Your task to perform on an android device: clear all cookies in the chrome app Image 0: 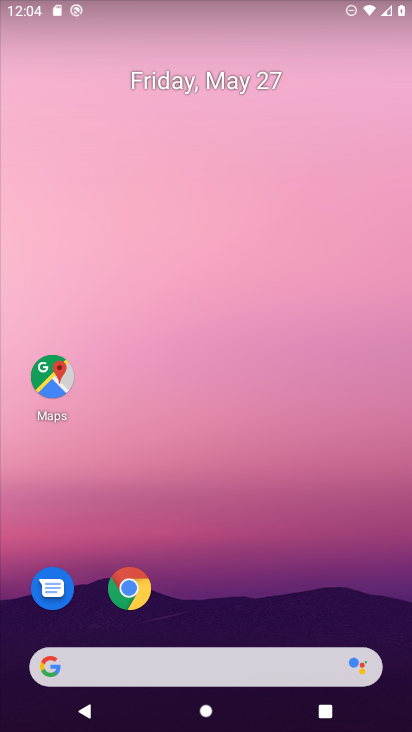
Step 0: click (130, 588)
Your task to perform on an android device: clear all cookies in the chrome app Image 1: 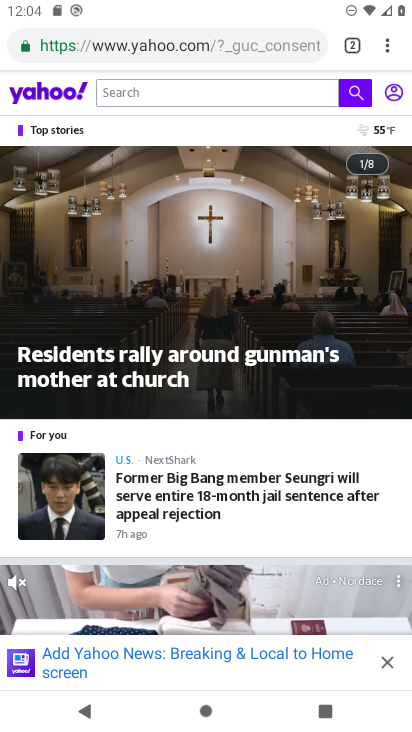
Step 1: click (383, 45)
Your task to perform on an android device: clear all cookies in the chrome app Image 2: 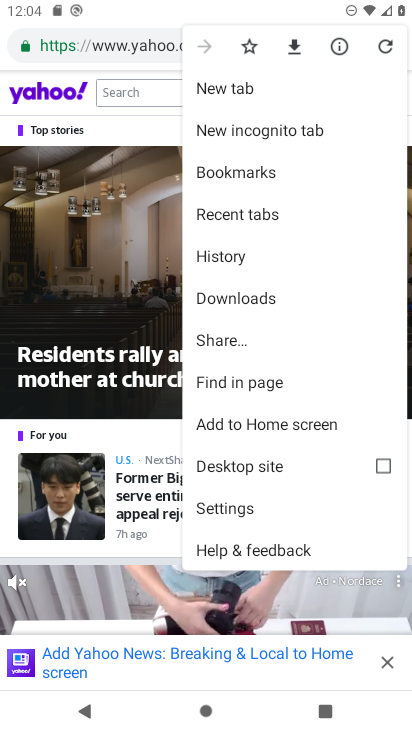
Step 2: click (225, 252)
Your task to perform on an android device: clear all cookies in the chrome app Image 3: 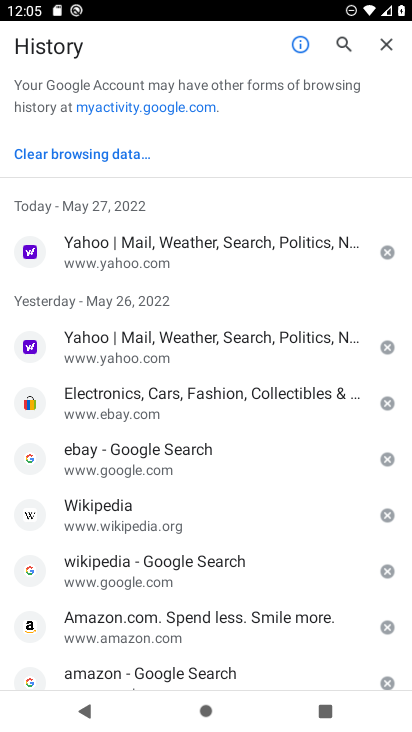
Step 3: click (71, 160)
Your task to perform on an android device: clear all cookies in the chrome app Image 4: 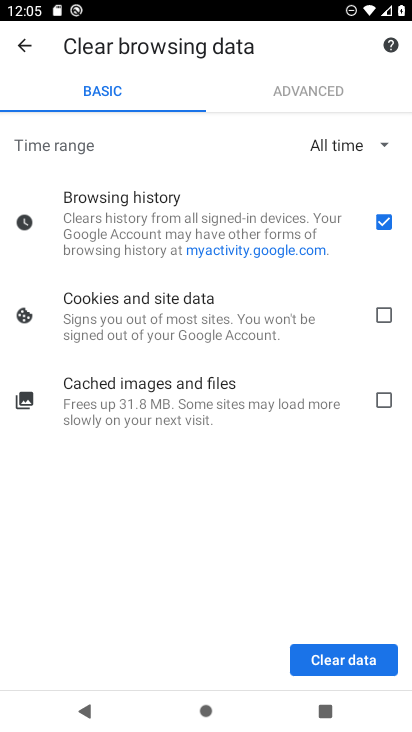
Step 4: click (388, 313)
Your task to perform on an android device: clear all cookies in the chrome app Image 5: 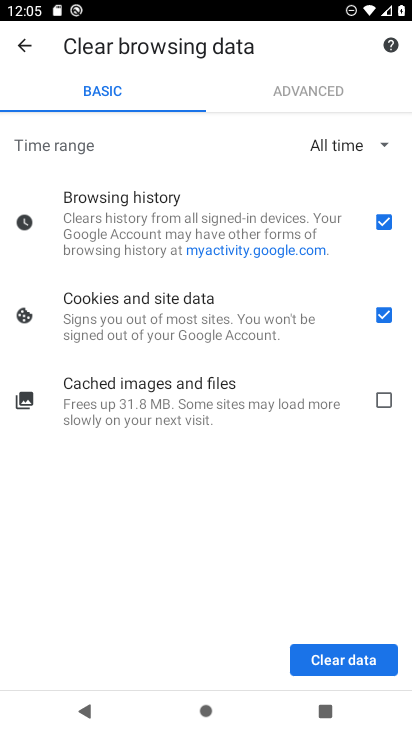
Step 5: click (380, 218)
Your task to perform on an android device: clear all cookies in the chrome app Image 6: 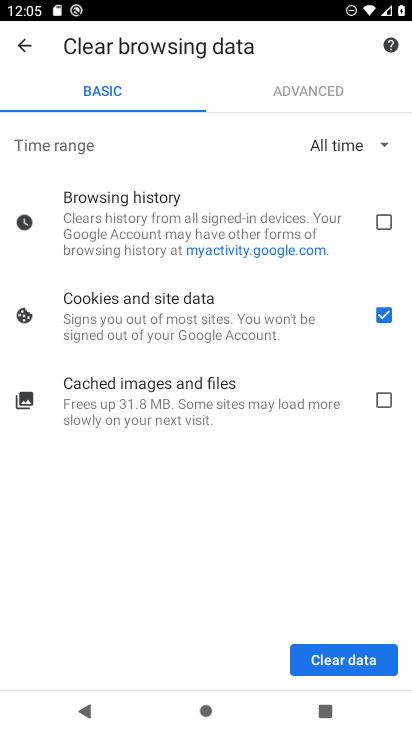
Step 6: click (343, 649)
Your task to perform on an android device: clear all cookies in the chrome app Image 7: 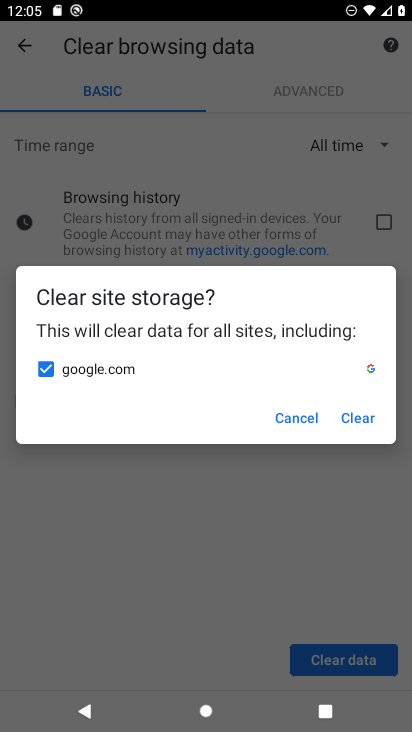
Step 7: click (363, 412)
Your task to perform on an android device: clear all cookies in the chrome app Image 8: 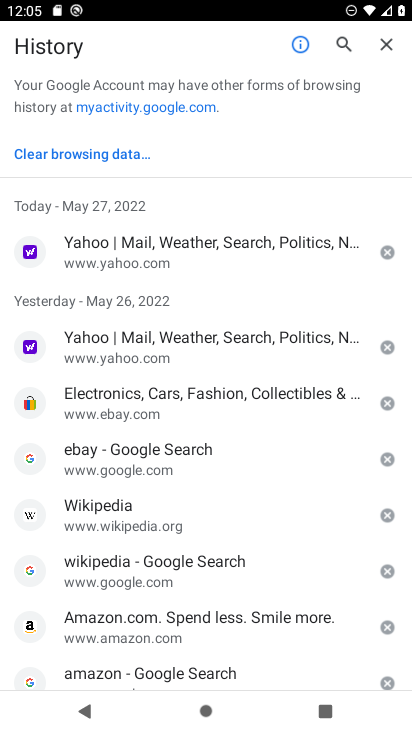
Step 8: task complete